Your task to perform on an android device: turn on showing notifications on the lock screen Image 0: 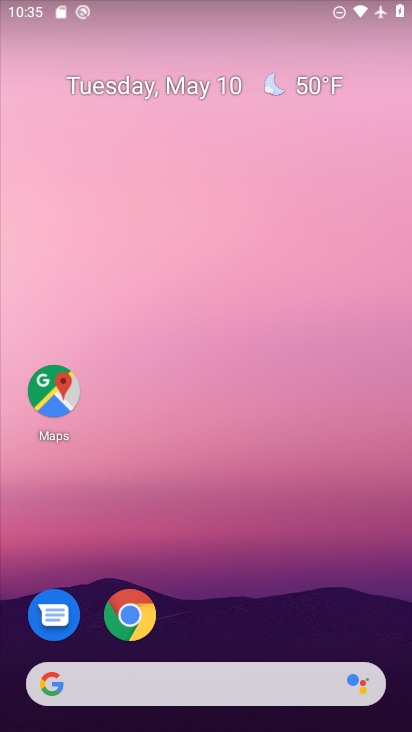
Step 0: drag from (379, 655) to (368, 150)
Your task to perform on an android device: turn on showing notifications on the lock screen Image 1: 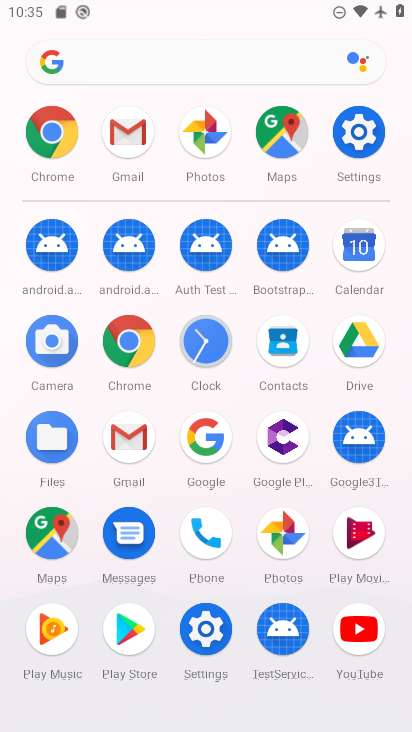
Step 1: click (205, 629)
Your task to perform on an android device: turn on showing notifications on the lock screen Image 2: 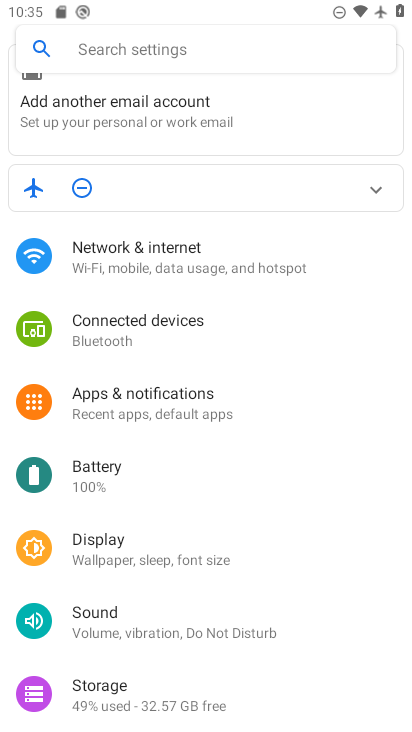
Step 2: click (138, 407)
Your task to perform on an android device: turn on showing notifications on the lock screen Image 3: 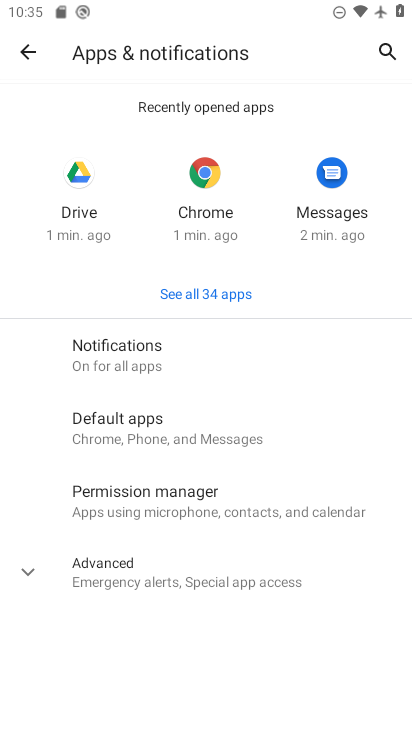
Step 3: click (110, 345)
Your task to perform on an android device: turn on showing notifications on the lock screen Image 4: 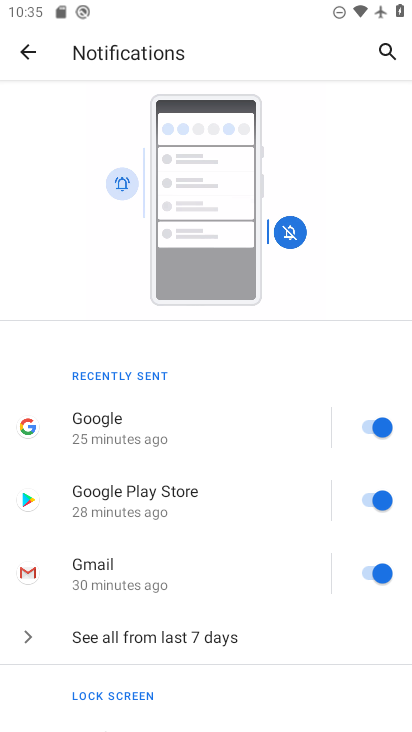
Step 4: drag from (319, 647) to (300, 177)
Your task to perform on an android device: turn on showing notifications on the lock screen Image 5: 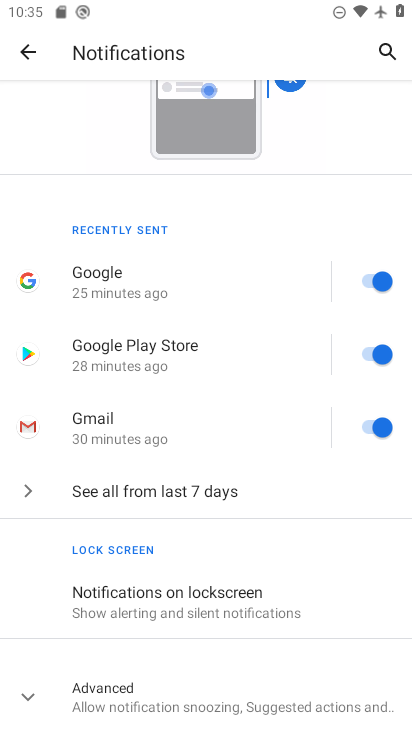
Step 5: click (20, 692)
Your task to perform on an android device: turn on showing notifications on the lock screen Image 6: 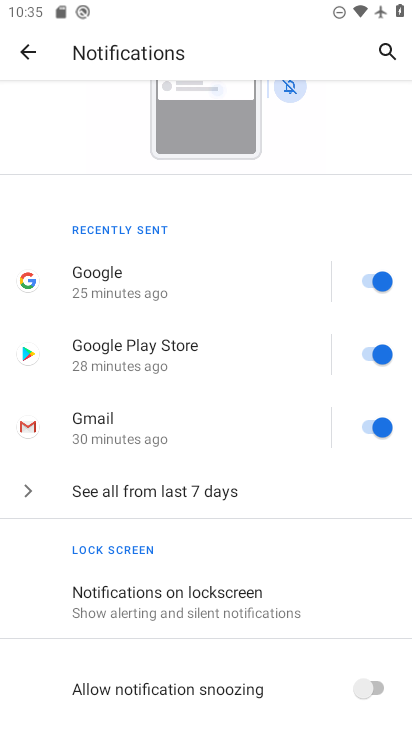
Step 6: click (176, 599)
Your task to perform on an android device: turn on showing notifications on the lock screen Image 7: 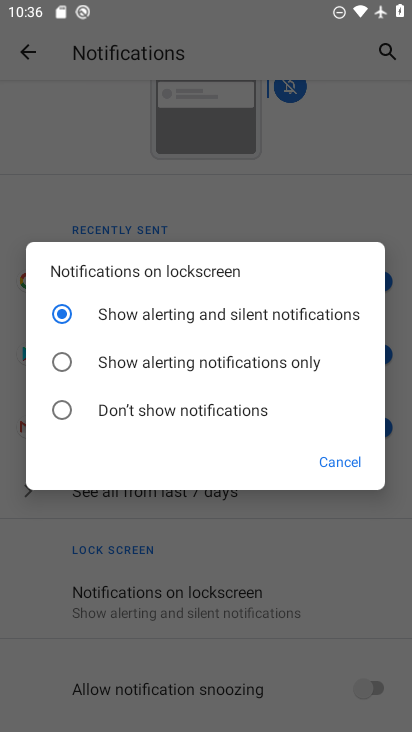
Step 7: task complete